Your task to perform on an android device: see creations saved in the google photos Image 0: 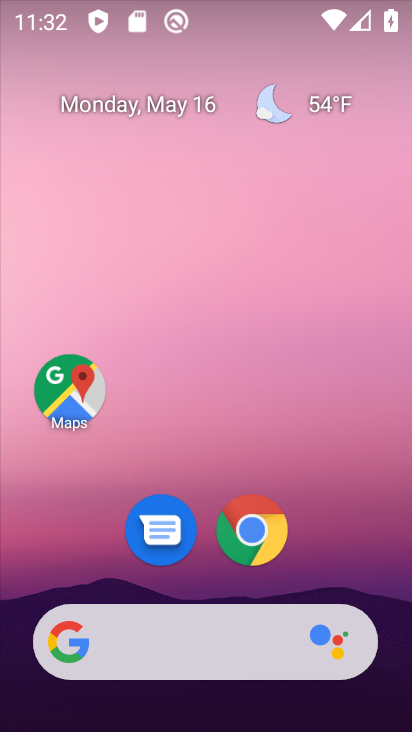
Step 0: drag from (342, 528) to (369, 150)
Your task to perform on an android device: see creations saved in the google photos Image 1: 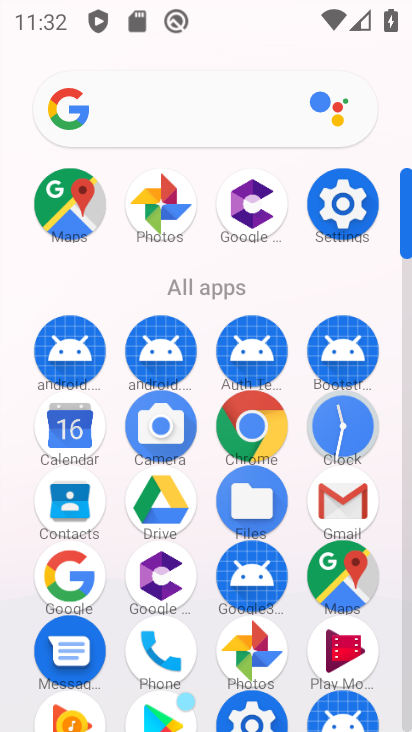
Step 1: click (173, 221)
Your task to perform on an android device: see creations saved in the google photos Image 2: 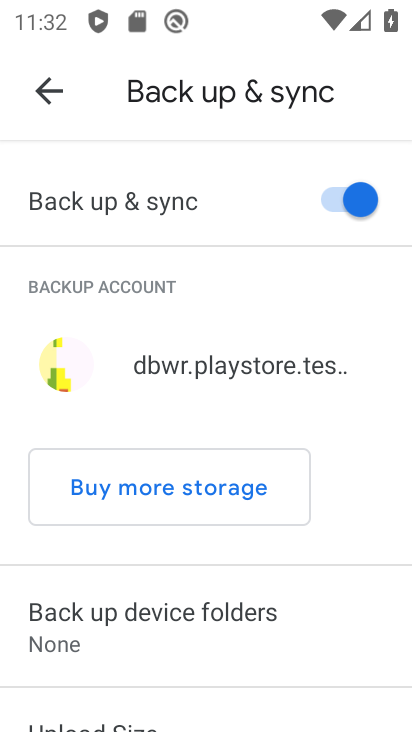
Step 2: click (53, 99)
Your task to perform on an android device: see creations saved in the google photos Image 3: 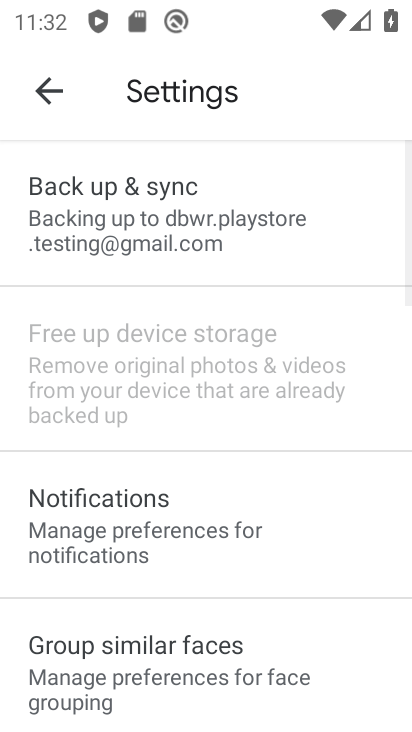
Step 3: click (53, 99)
Your task to perform on an android device: see creations saved in the google photos Image 4: 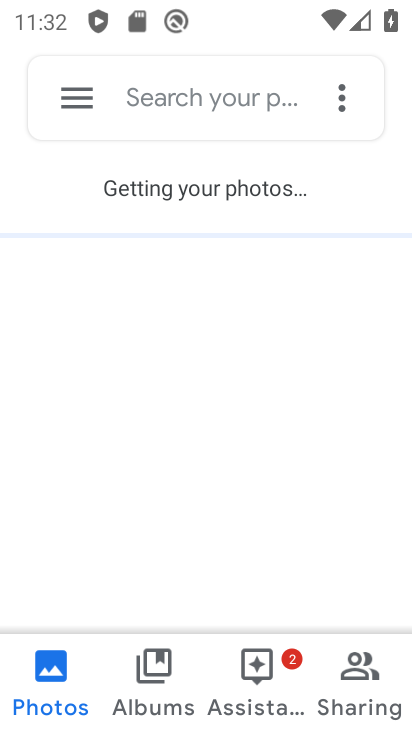
Step 4: click (193, 105)
Your task to perform on an android device: see creations saved in the google photos Image 5: 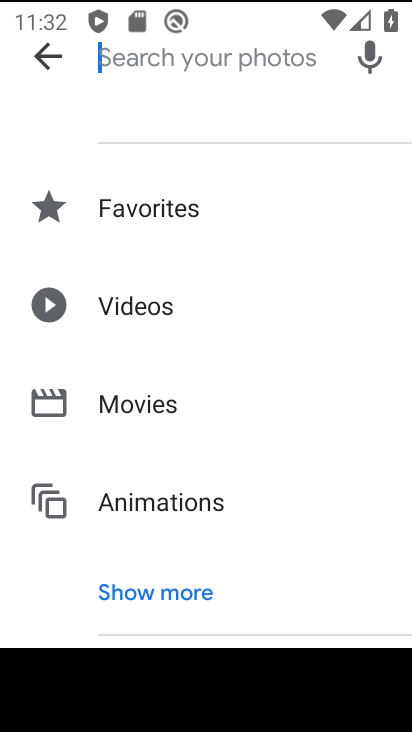
Step 5: drag from (301, 447) to (310, 232)
Your task to perform on an android device: see creations saved in the google photos Image 6: 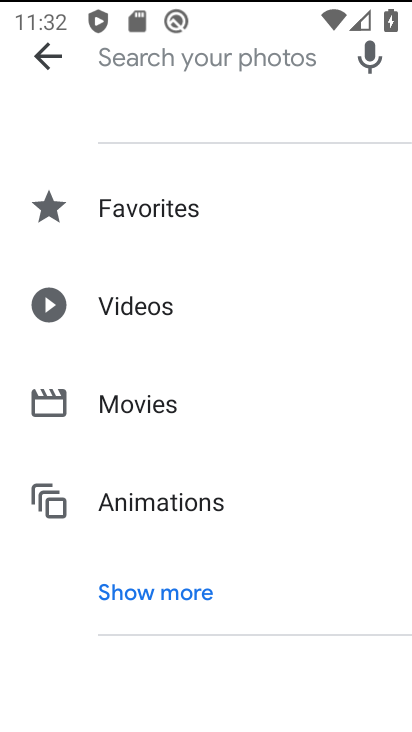
Step 6: click (205, 582)
Your task to perform on an android device: see creations saved in the google photos Image 7: 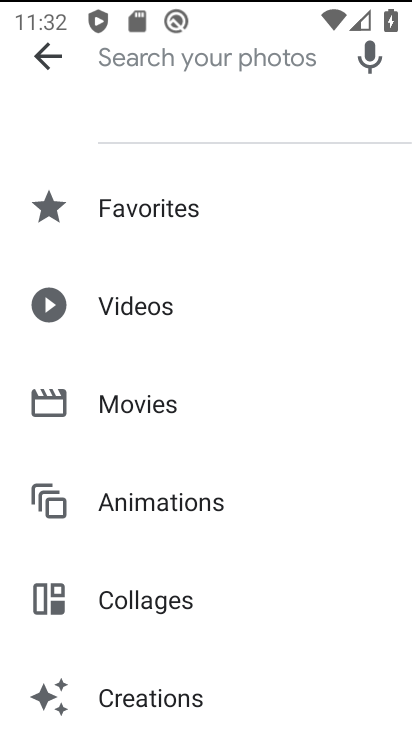
Step 7: drag from (285, 564) to (308, 447)
Your task to perform on an android device: see creations saved in the google photos Image 8: 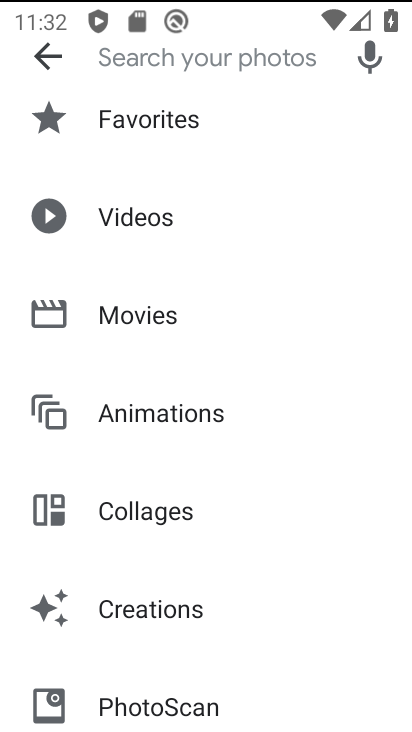
Step 8: drag from (315, 624) to (319, 401)
Your task to perform on an android device: see creations saved in the google photos Image 9: 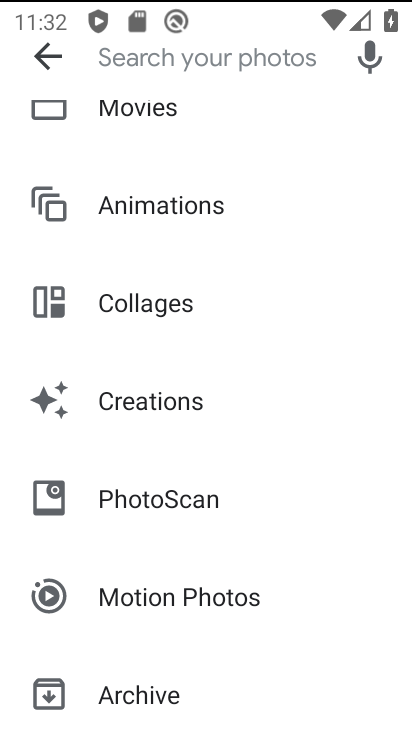
Step 9: drag from (332, 540) to (362, 435)
Your task to perform on an android device: see creations saved in the google photos Image 10: 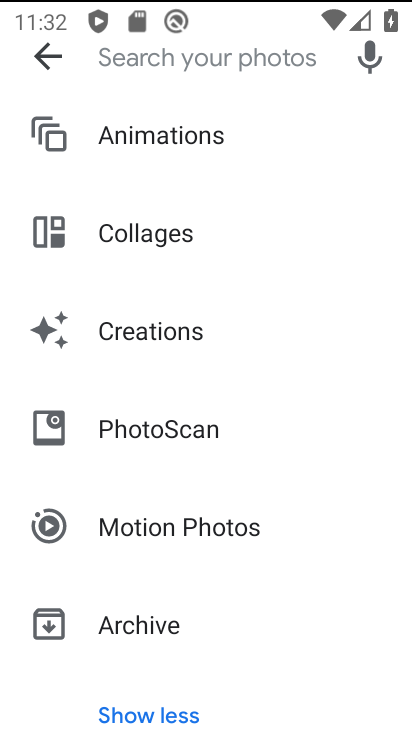
Step 10: click (182, 345)
Your task to perform on an android device: see creations saved in the google photos Image 11: 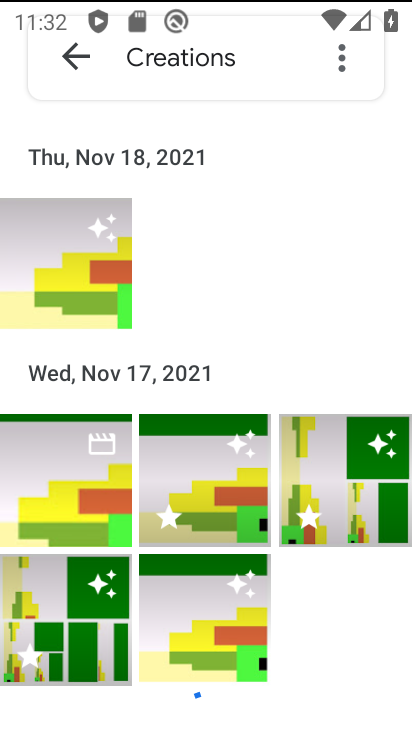
Step 11: task complete